Your task to perform on an android device: What's the weather going to be this weekend? Image 0: 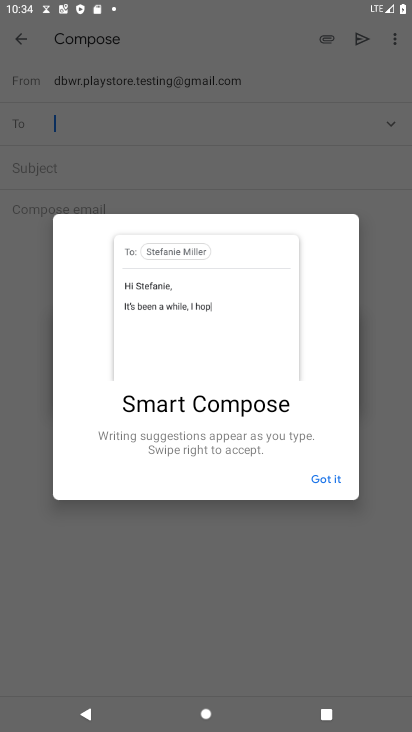
Step 0: press home button
Your task to perform on an android device: What's the weather going to be this weekend? Image 1: 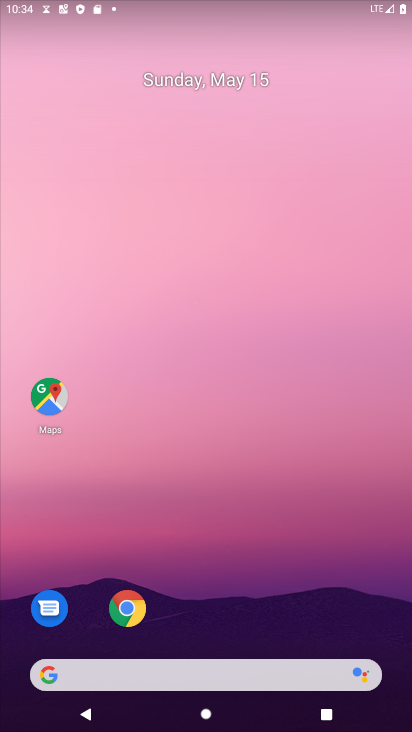
Step 1: drag from (294, 569) to (251, 5)
Your task to perform on an android device: What's the weather going to be this weekend? Image 2: 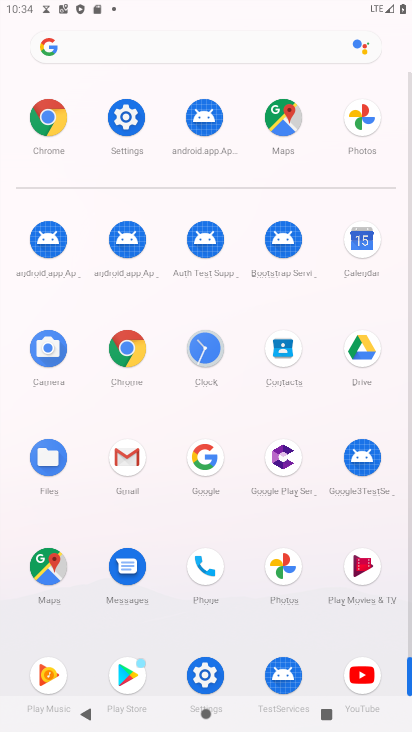
Step 2: press home button
Your task to perform on an android device: What's the weather going to be this weekend? Image 3: 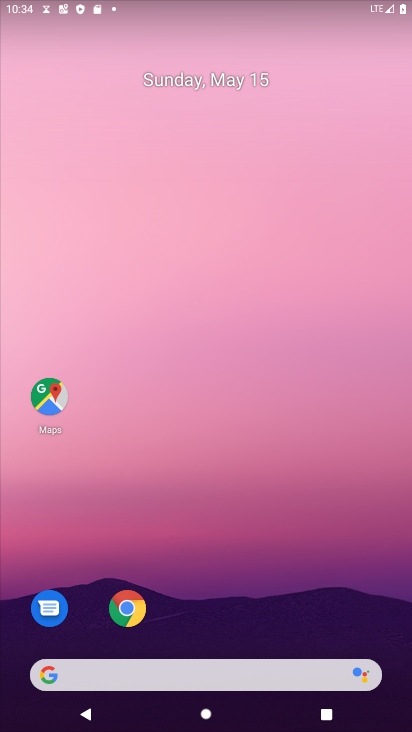
Step 3: click (49, 670)
Your task to perform on an android device: What's the weather going to be this weekend? Image 4: 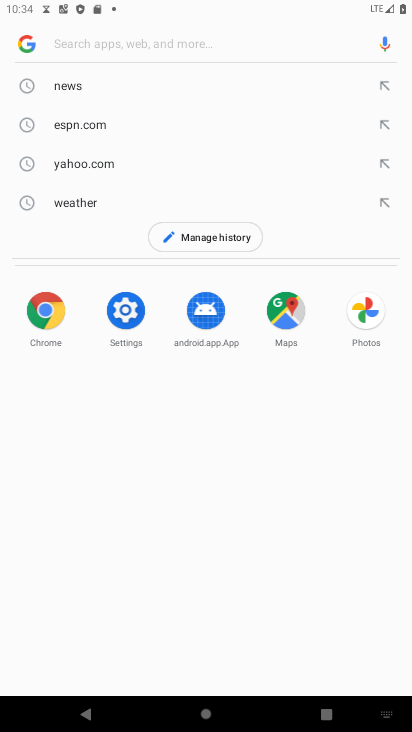
Step 4: click (24, 35)
Your task to perform on an android device: What's the weather going to be this weekend? Image 5: 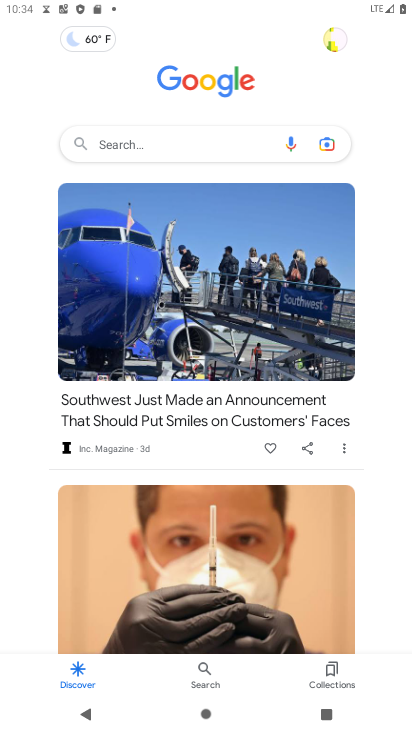
Step 5: click (79, 41)
Your task to perform on an android device: What's the weather going to be this weekend? Image 6: 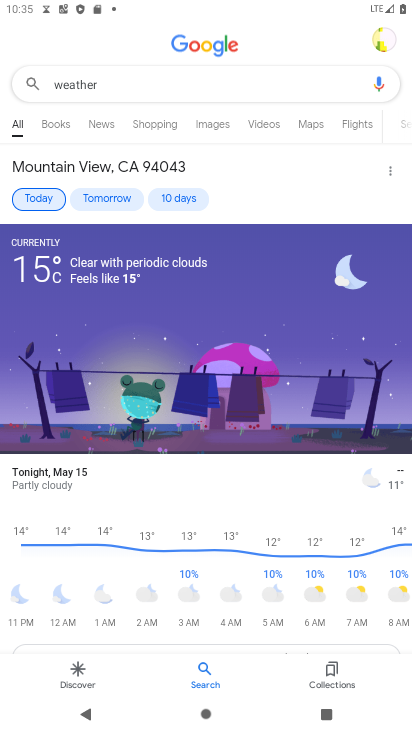
Step 6: click (168, 204)
Your task to perform on an android device: What's the weather going to be this weekend? Image 7: 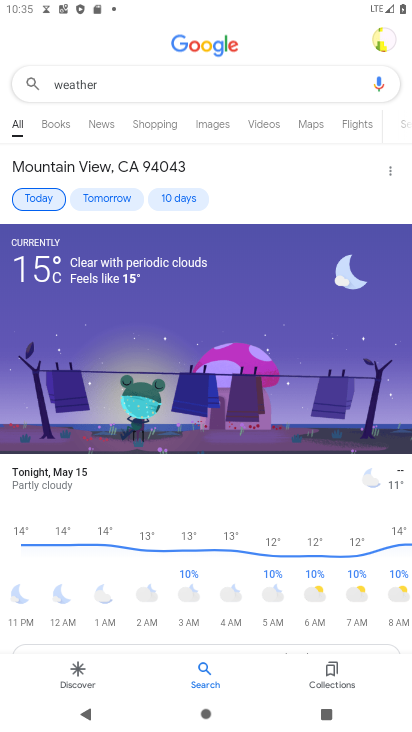
Step 7: click (169, 197)
Your task to perform on an android device: What's the weather going to be this weekend? Image 8: 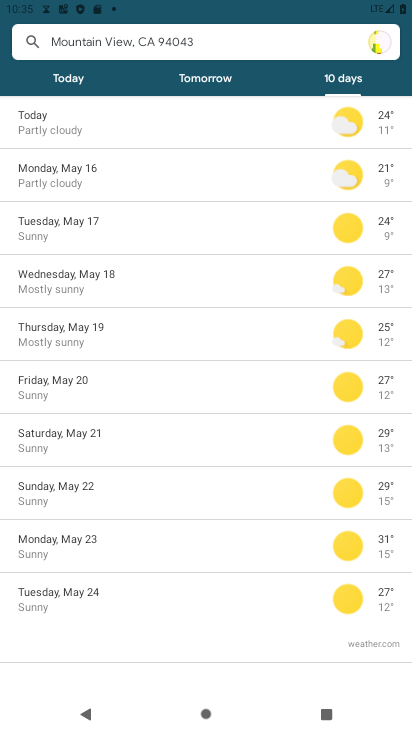
Step 8: task complete